Your task to perform on an android device: turn on the 24-hour format for clock Image 0: 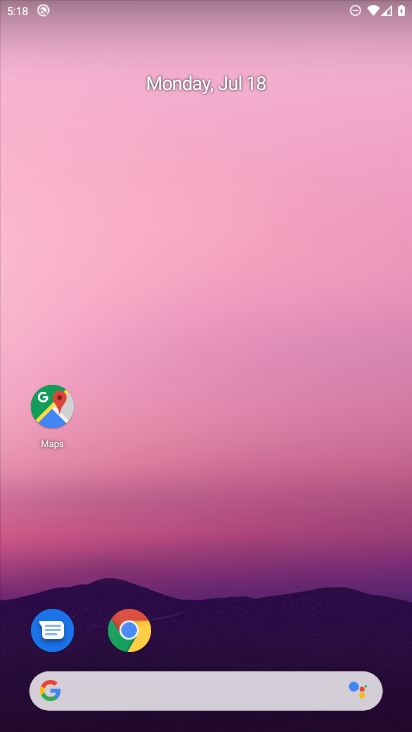
Step 0: drag from (217, 641) to (221, 236)
Your task to perform on an android device: turn on the 24-hour format for clock Image 1: 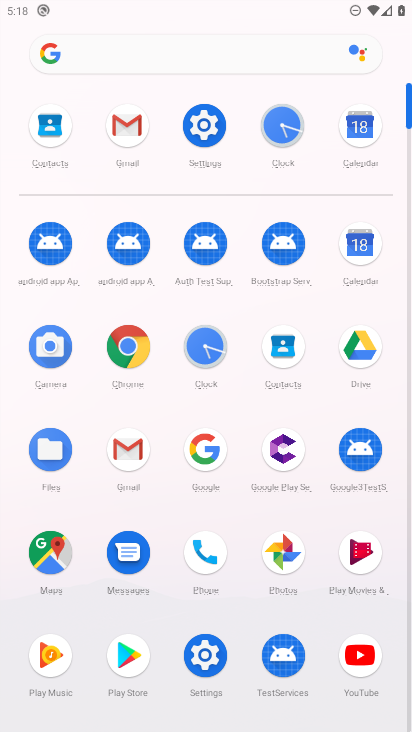
Step 1: click (209, 343)
Your task to perform on an android device: turn on the 24-hour format for clock Image 2: 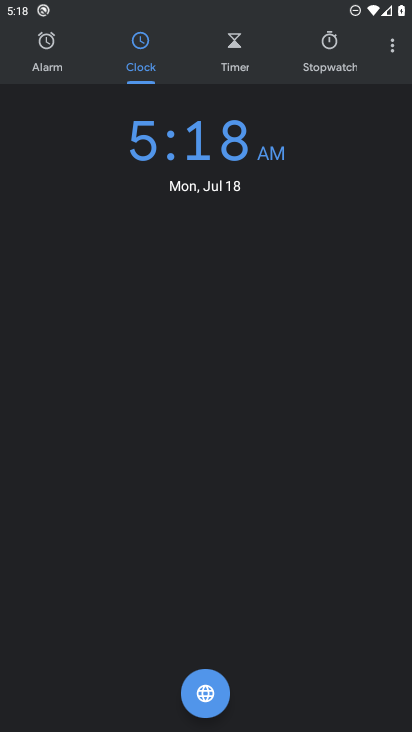
Step 2: click (393, 40)
Your task to perform on an android device: turn on the 24-hour format for clock Image 3: 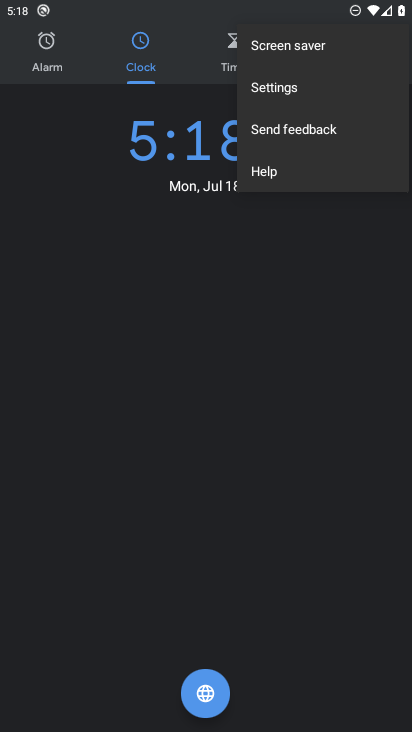
Step 3: click (308, 88)
Your task to perform on an android device: turn on the 24-hour format for clock Image 4: 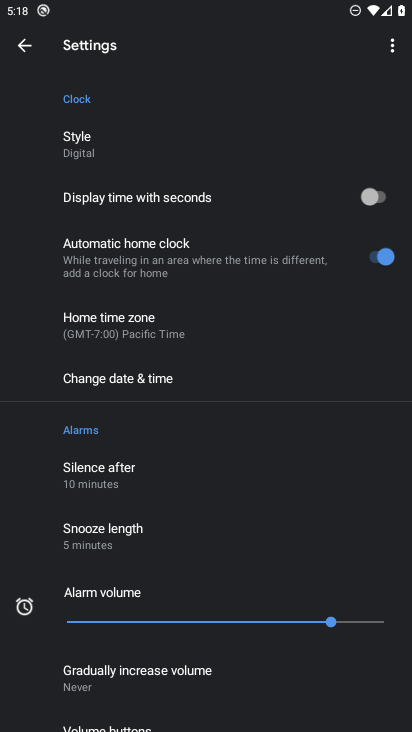
Step 4: click (161, 381)
Your task to perform on an android device: turn on the 24-hour format for clock Image 5: 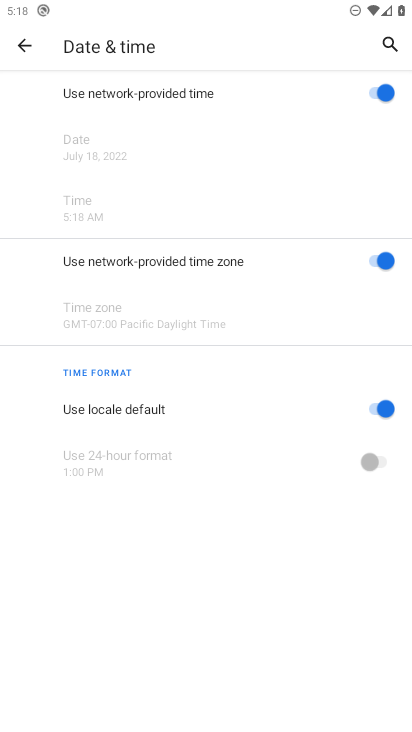
Step 5: click (374, 405)
Your task to perform on an android device: turn on the 24-hour format for clock Image 6: 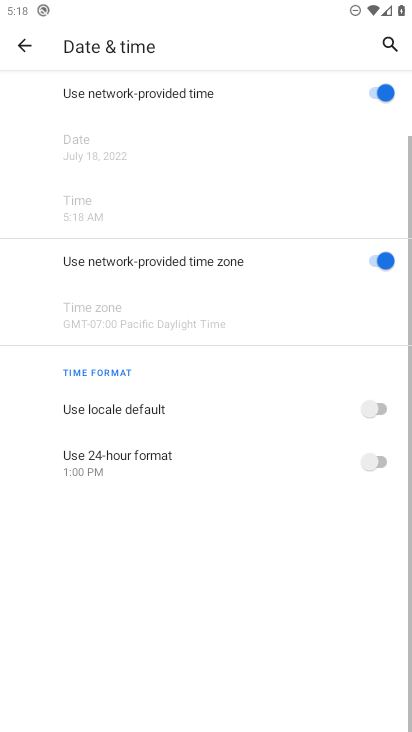
Step 6: click (379, 462)
Your task to perform on an android device: turn on the 24-hour format for clock Image 7: 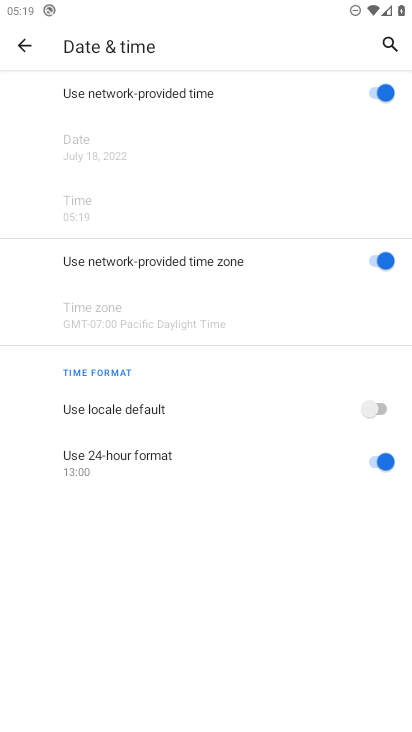
Step 7: task complete